Your task to perform on an android device: set an alarm Image 0: 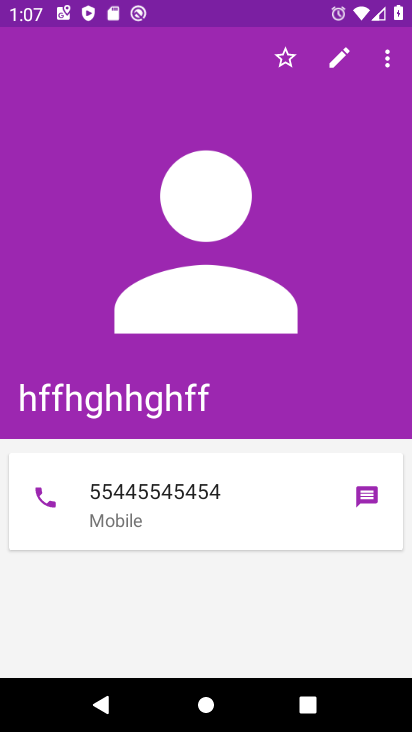
Step 0: press home button
Your task to perform on an android device: set an alarm Image 1: 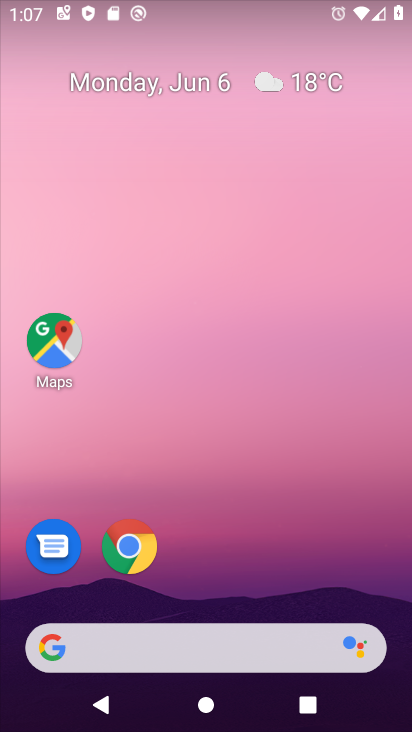
Step 1: drag from (269, 499) to (297, 115)
Your task to perform on an android device: set an alarm Image 2: 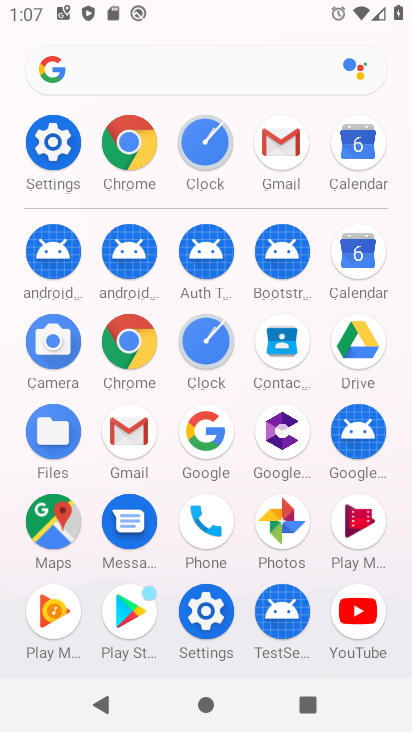
Step 2: click (208, 144)
Your task to perform on an android device: set an alarm Image 3: 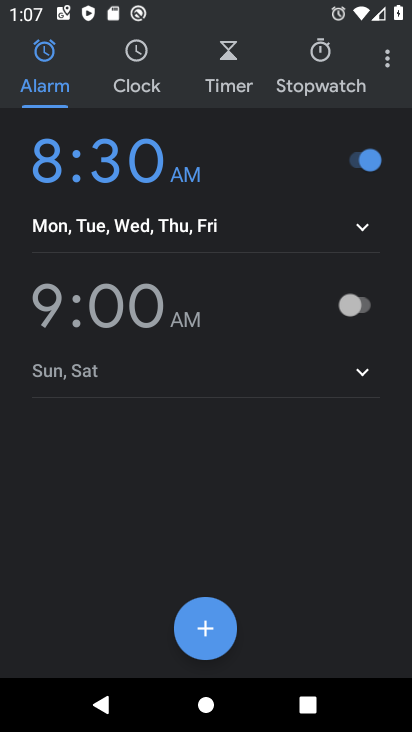
Step 3: click (174, 189)
Your task to perform on an android device: set an alarm Image 4: 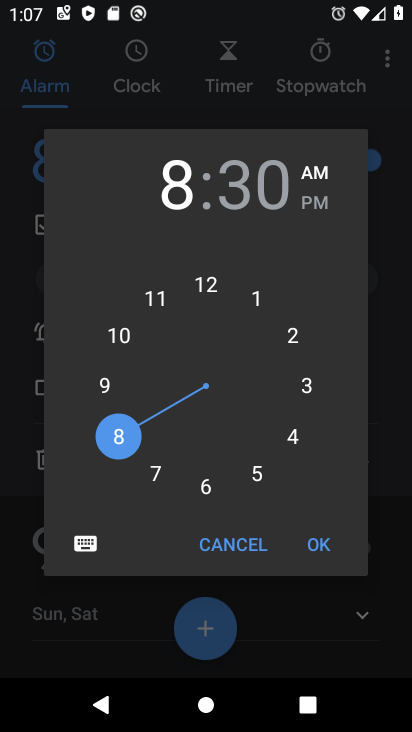
Step 4: click (166, 284)
Your task to perform on an android device: set an alarm Image 5: 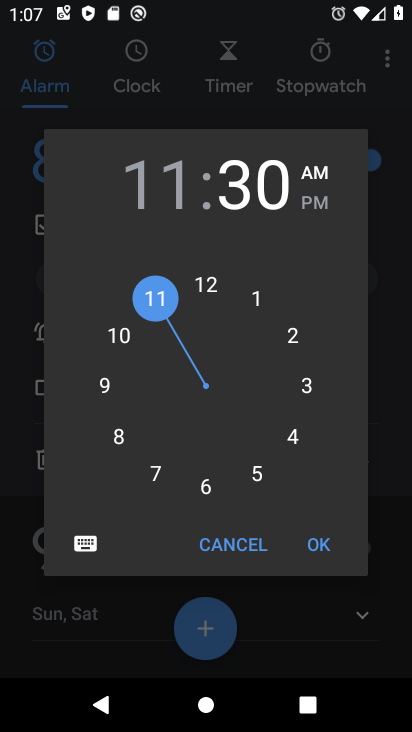
Step 5: click (161, 293)
Your task to perform on an android device: set an alarm Image 6: 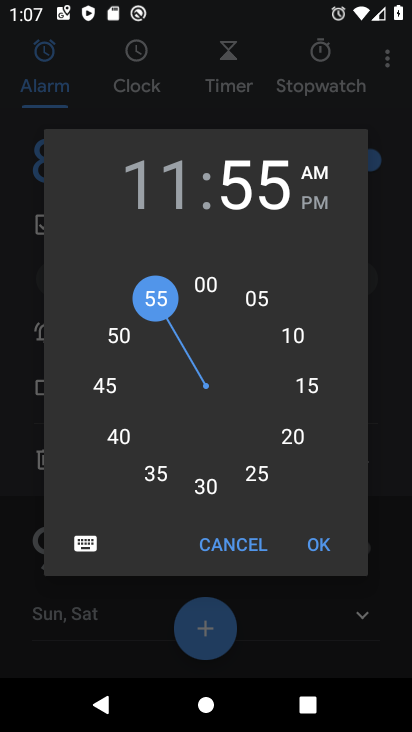
Step 6: click (325, 522)
Your task to perform on an android device: set an alarm Image 7: 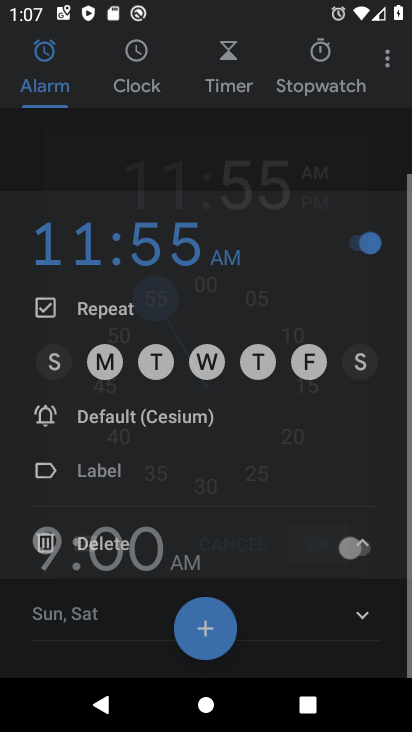
Step 7: click (326, 538)
Your task to perform on an android device: set an alarm Image 8: 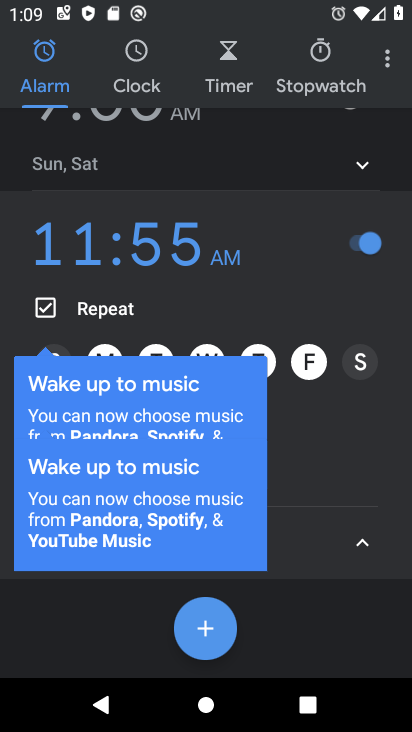
Step 8: task complete